Your task to perform on an android device: Check the news Image 0: 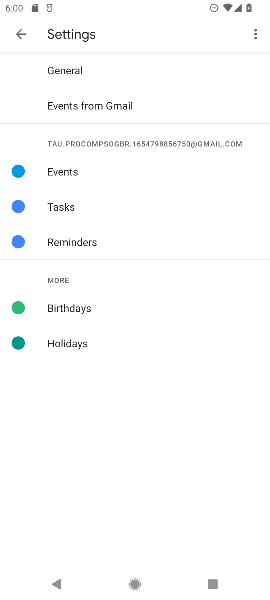
Step 0: press home button
Your task to perform on an android device: Check the news Image 1: 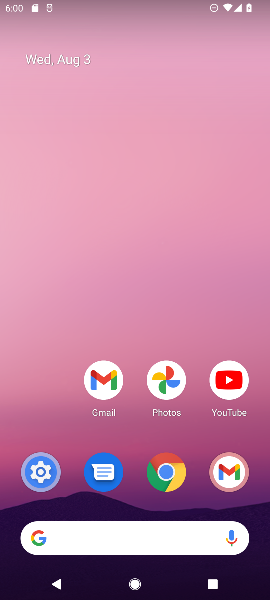
Step 1: drag from (215, 500) to (92, 40)
Your task to perform on an android device: Check the news Image 2: 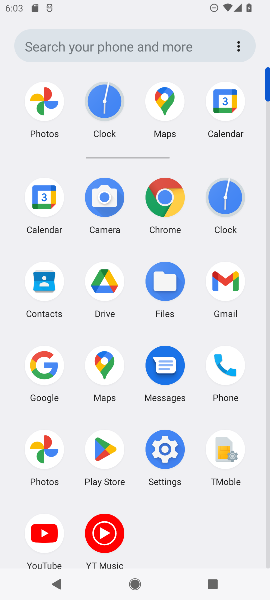
Step 2: click (55, 369)
Your task to perform on an android device: Check the news Image 3: 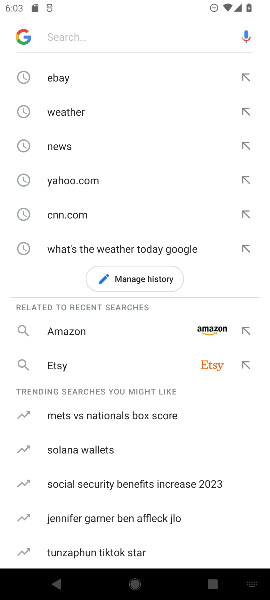
Step 3: click (66, 156)
Your task to perform on an android device: Check the news Image 4: 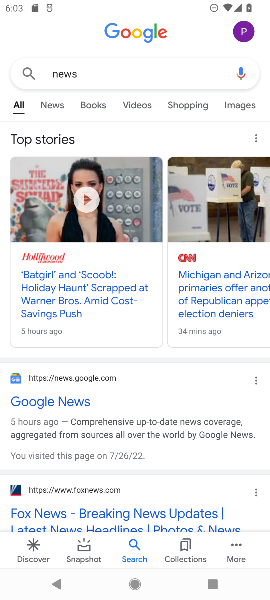
Step 4: task complete